Your task to perform on an android device: turn off location history Image 0: 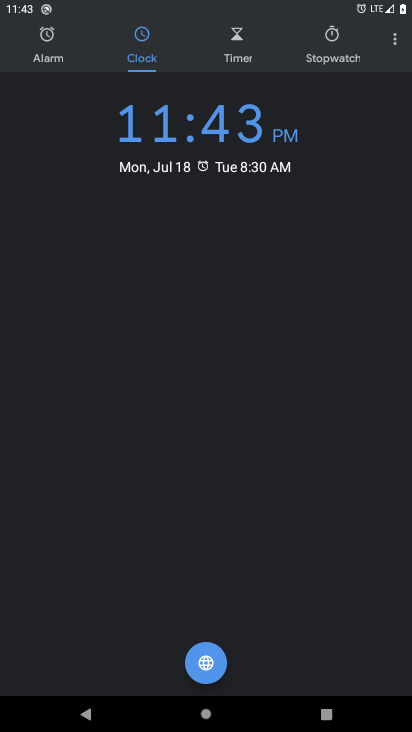
Step 0: press home button
Your task to perform on an android device: turn off location history Image 1: 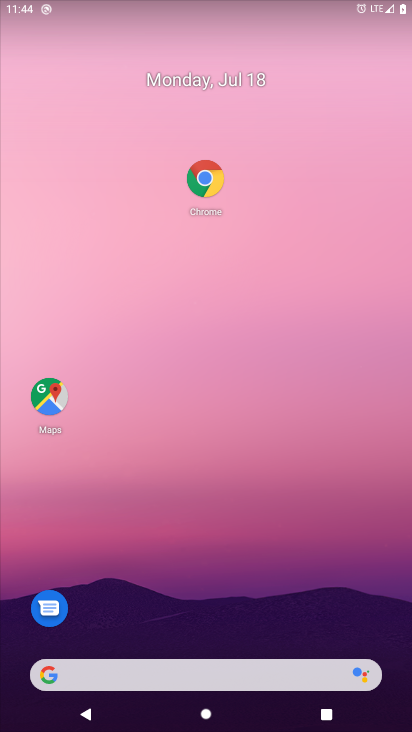
Step 1: drag from (40, 664) to (223, 133)
Your task to perform on an android device: turn off location history Image 2: 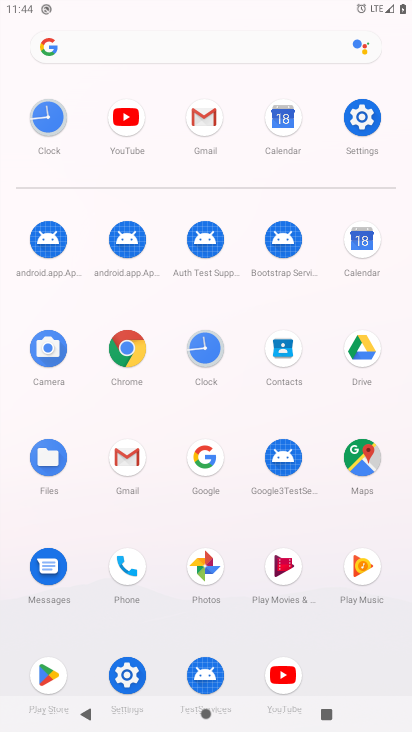
Step 2: click (131, 687)
Your task to perform on an android device: turn off location history Image 3: 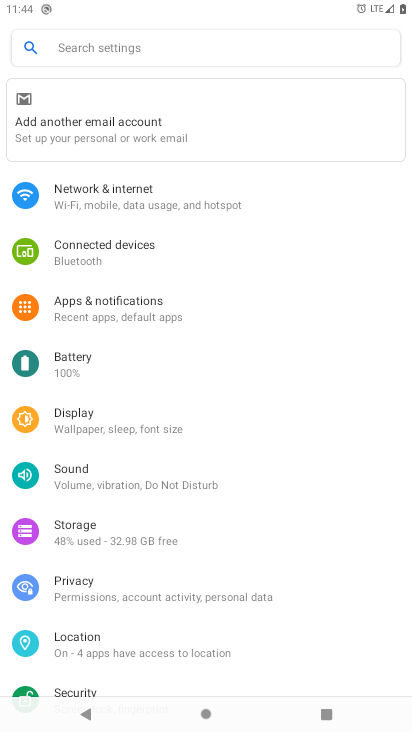
Step 3: click (67, 638)
Your task to perform on an android device: turn off location history Image 4: 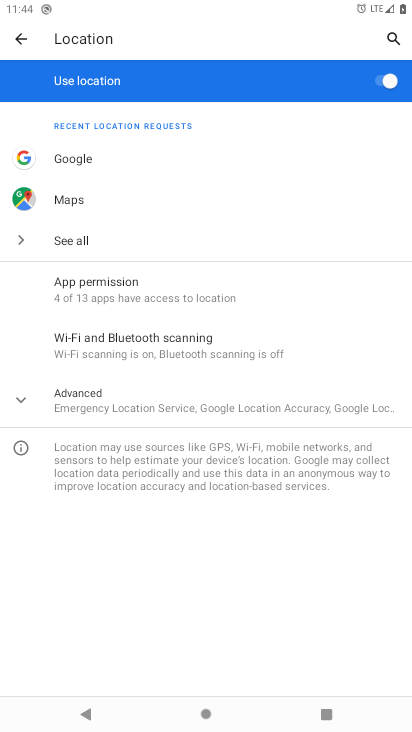
Step 4: click (100, 388)
Your task to perform on an android device: turn off location history Image 5: 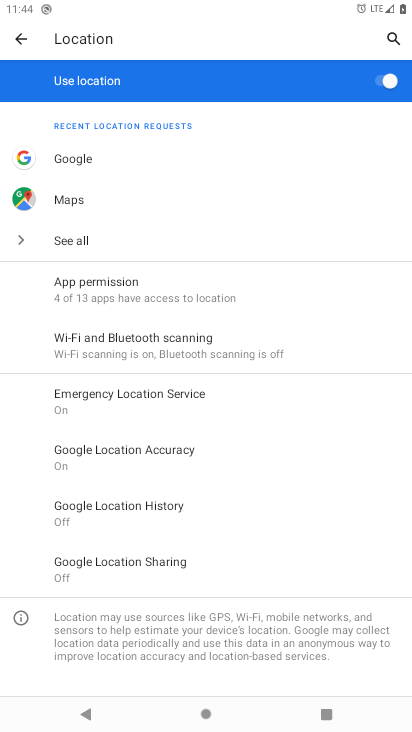
Step 5: task complete